Your task to perform on an android device: clear history in the chrome app Image 0: 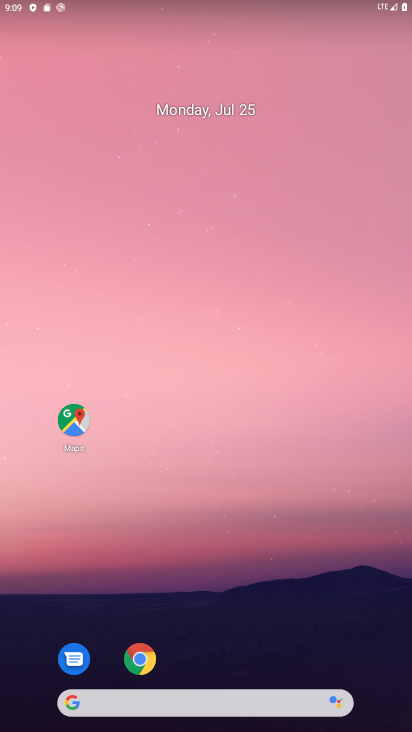
Step 0: click (146, 653)
Your task to perform on an android device: clear history in the chrome app Image 1: 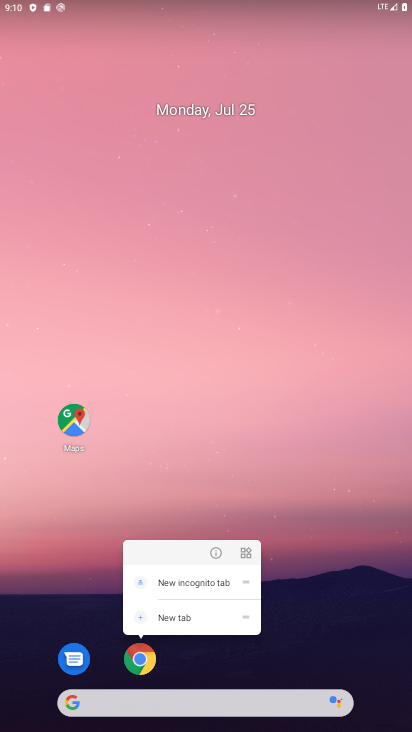
Step 1: click (143, 660)
Your task to perform on an android device: clear history in the chrome app Image 2: 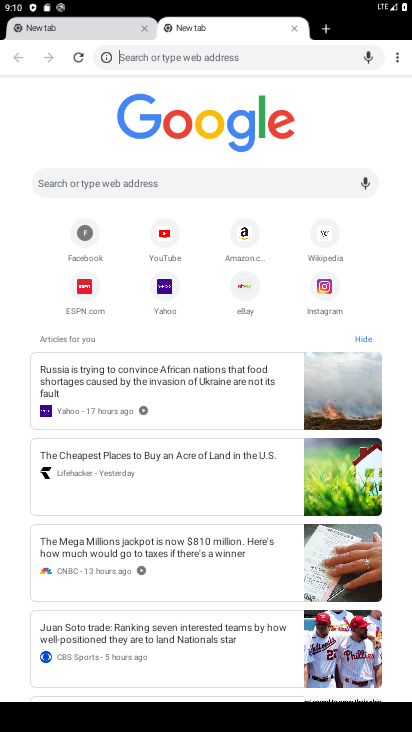
Step 2: click (396, 55)
Your task to perform on an android device: clear history in the chrome app Image 3: 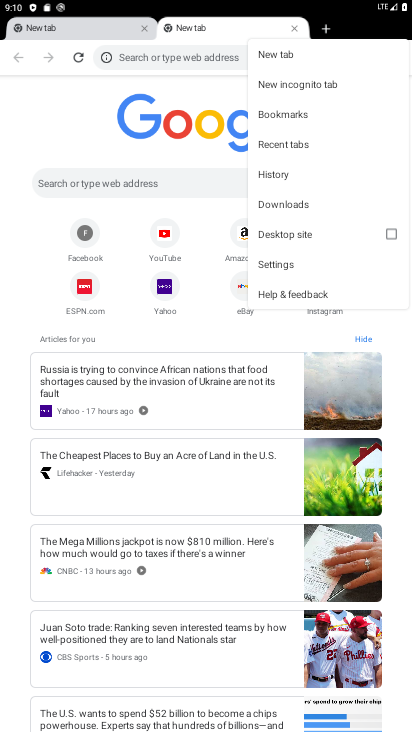
Step 3: click (288, 172)
Your task to perform on an android device: clear history in the chrome app Image 4: 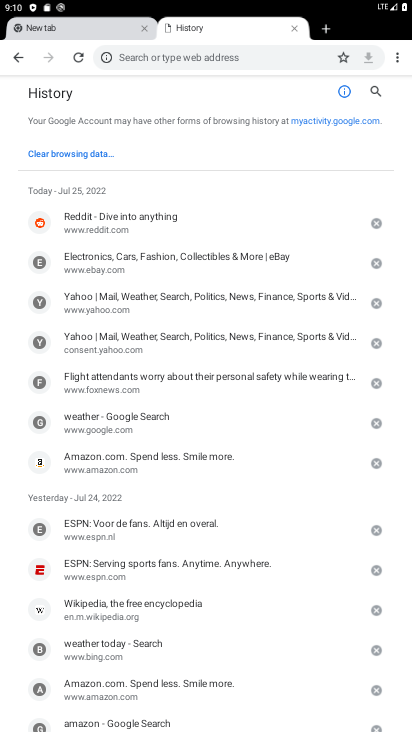
Step 4: click (79, 155)
Your task to perform on an android device: clear history in the chrome app Image 5: 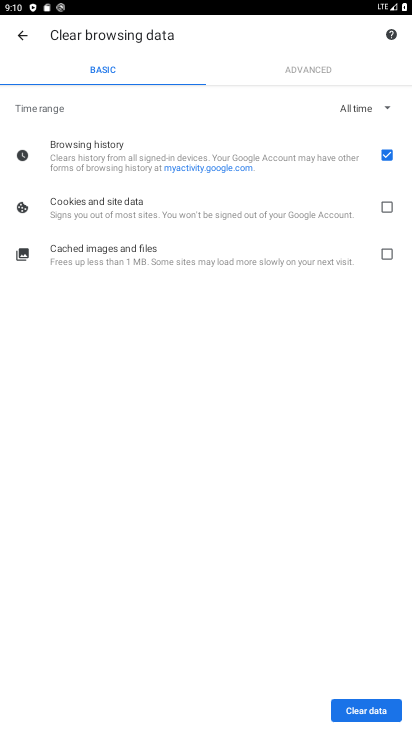
Step 5: click (386, 198)
Your task to perform on an android device: clear history in the chrome app Image 6: 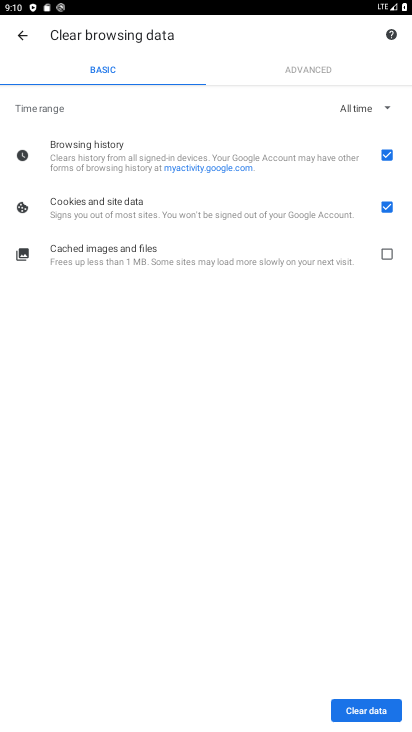
Step 6: click (382, 263)
Your task to perform on an android device: clear history in the chrome app Image 7: 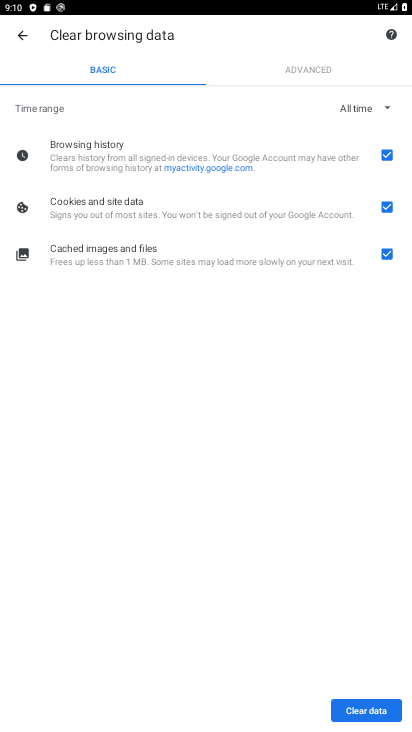
Step 7: click (368, 707)
Your task to perform on an android device: clear history in the chrome app Image 8: 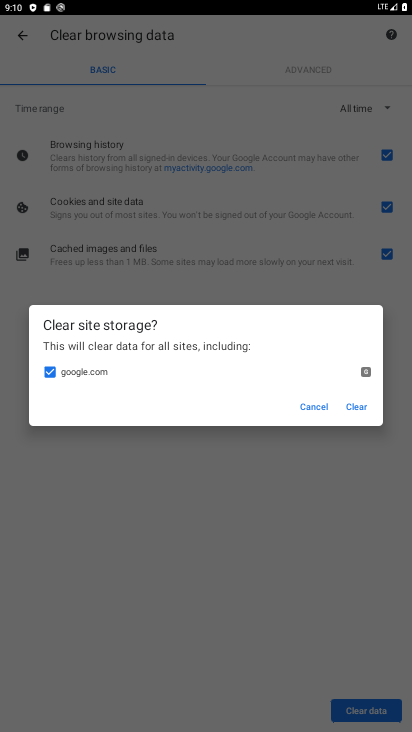
Step 8: click (359, 408)
Your task to perform on an android device: clear history in the chrome app Image 9: 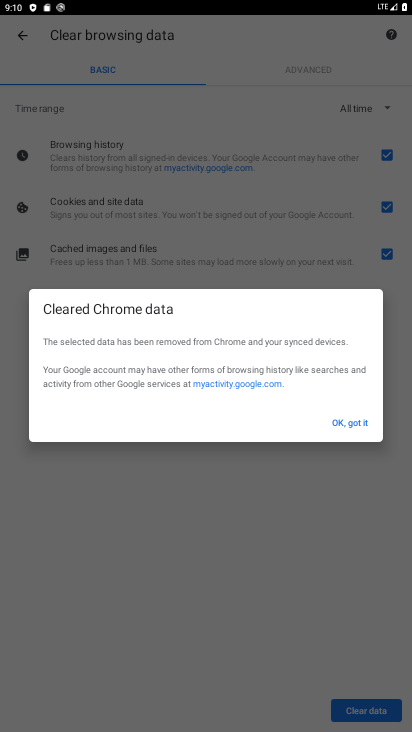
Step 9: click (368, 424)
Your task to perform on an android device: clear history in the chrome app Image 10: 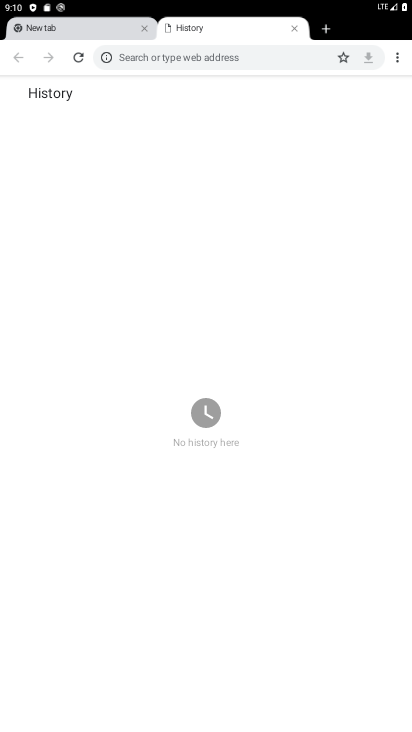
Step 10: task complete